Your task to perform on an android device: toggle notifications settings in the gmail app Image 0: 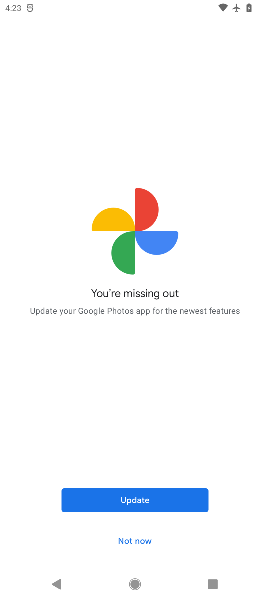
Step 0: press home button
Your task to perform on an android device: toggle notifications settings in the gmail app Image 1: 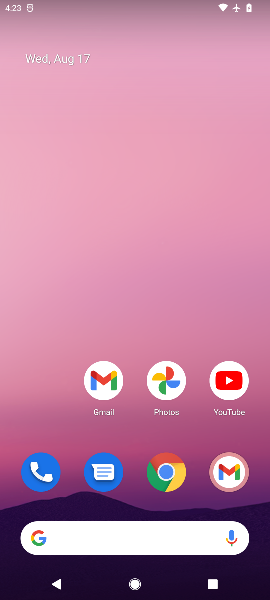
Step 1: drag from (127, 483) to (165, 12)
Your task to perform on an android device: toggle notifications settings in the gmail app Image 2: 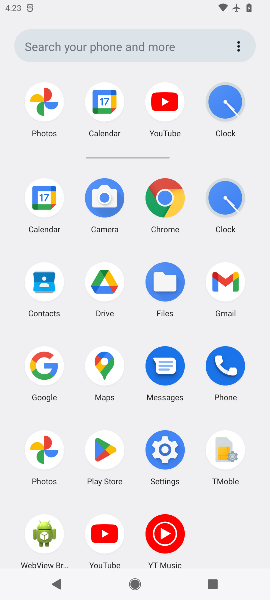
Step 2: click (223, 293)
Your task to perform on an android device: toggle notifications settings in the gmail app Image 3: 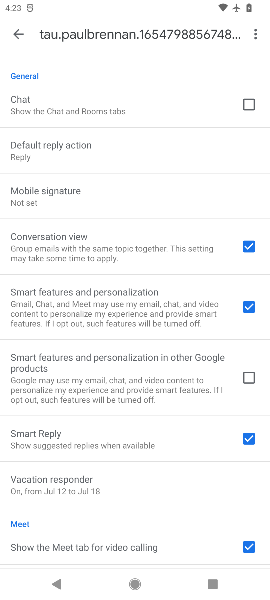
Step 3: click (13, 27)
Your task to perform on an android device: toggle notifications settings in the gmail app Image 4: 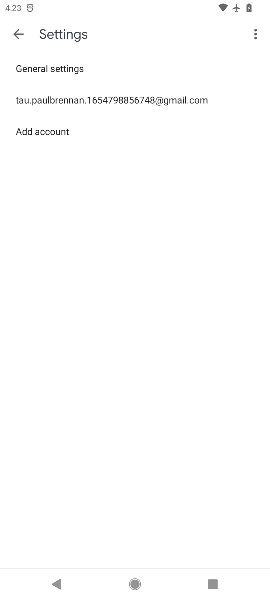
Step 4: click (79, 65)
Your task to perform on an android device: toggle notifications settings in the gmail app Image 5: 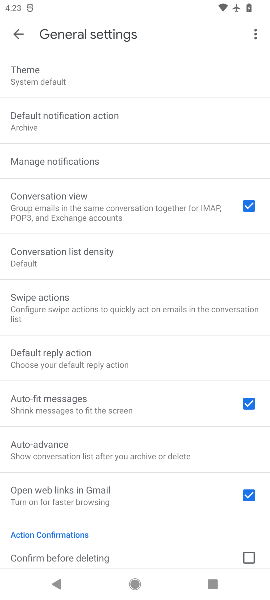
Step 5: click (67, 158)
Your task to perform on an android device: toggle notifications settings in the gmail app Image 6: 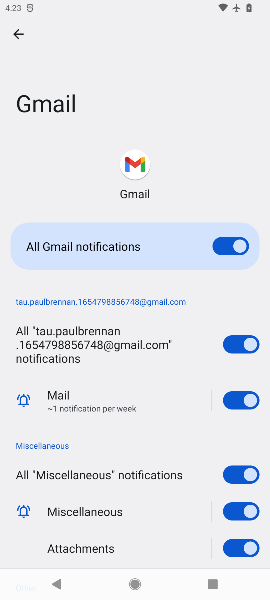
Step 6: click (214, 250)
Your task to perform on an android device: toggle notifications settings in the gmail app Image 7: 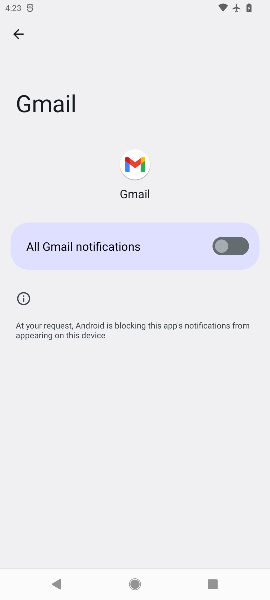
Step 7: task complete